Your task to perform on an android device: Search for vegetarian restaurants on Maps Image 0: 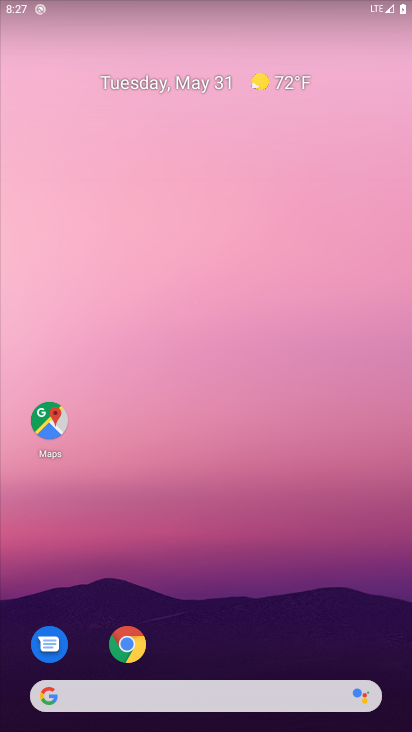
Step 0: press home button
Your task to perform on an android device: Search for vegetarian restaurants on Maps Image 1: 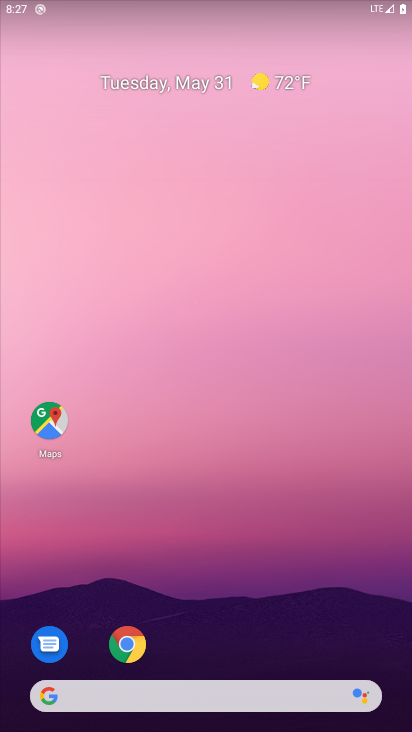
Step 1: drag from (228, 654) to (217, 180)
Your task to perform on an android device: Search for vegetarian restaurants on Maps Image 2: 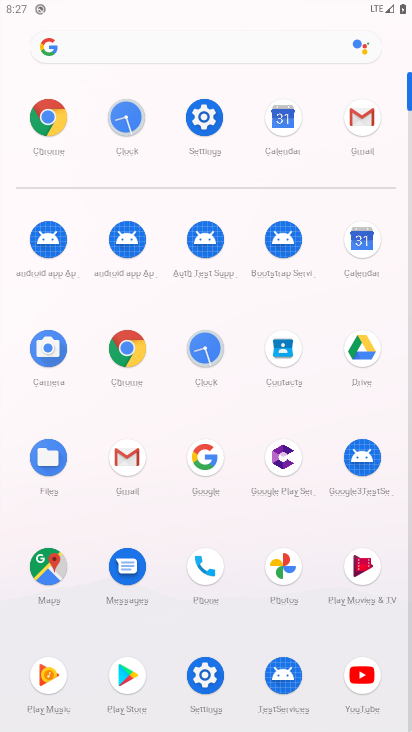
Step 2: click (49, 567)
Your task to perform on an android device: Search for vegetarian restaurants on Maps Image 3: 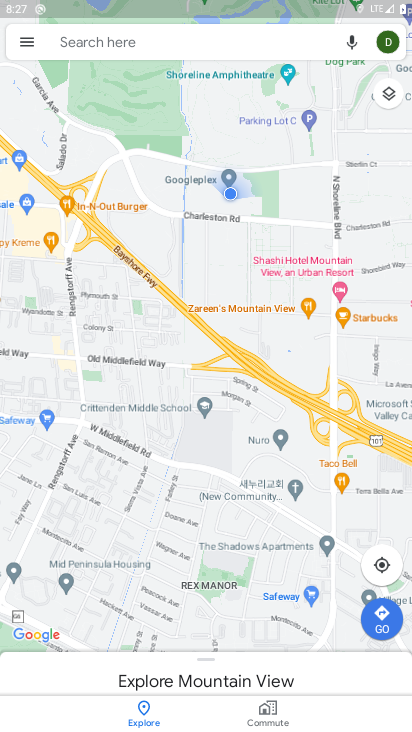
Step 3: click (97, 37)
Your task to perform on an android device: Search for vegetarian restaurants on Maps Image 4: 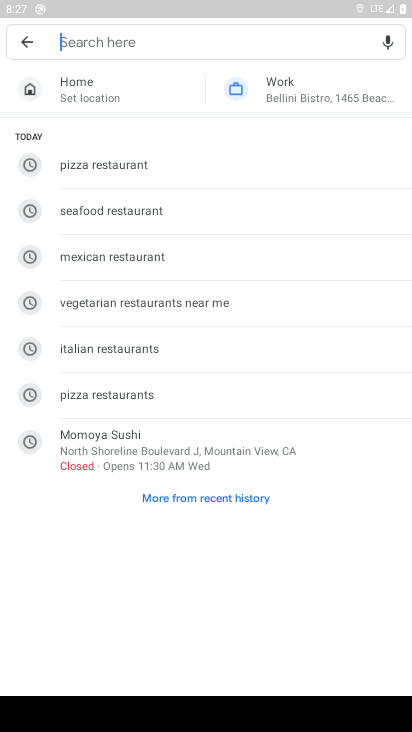
Step 4: click (99, 304)
Your task to perform on an android device: Search for vegetarian restaurants on Maps Image 5: 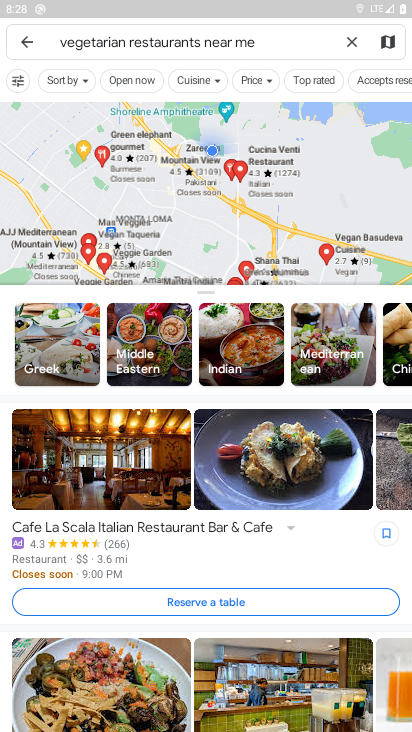
Step 5: task complete